Your task to perform on an android device: uninstall "Microsoft Authenticator" Image 0: 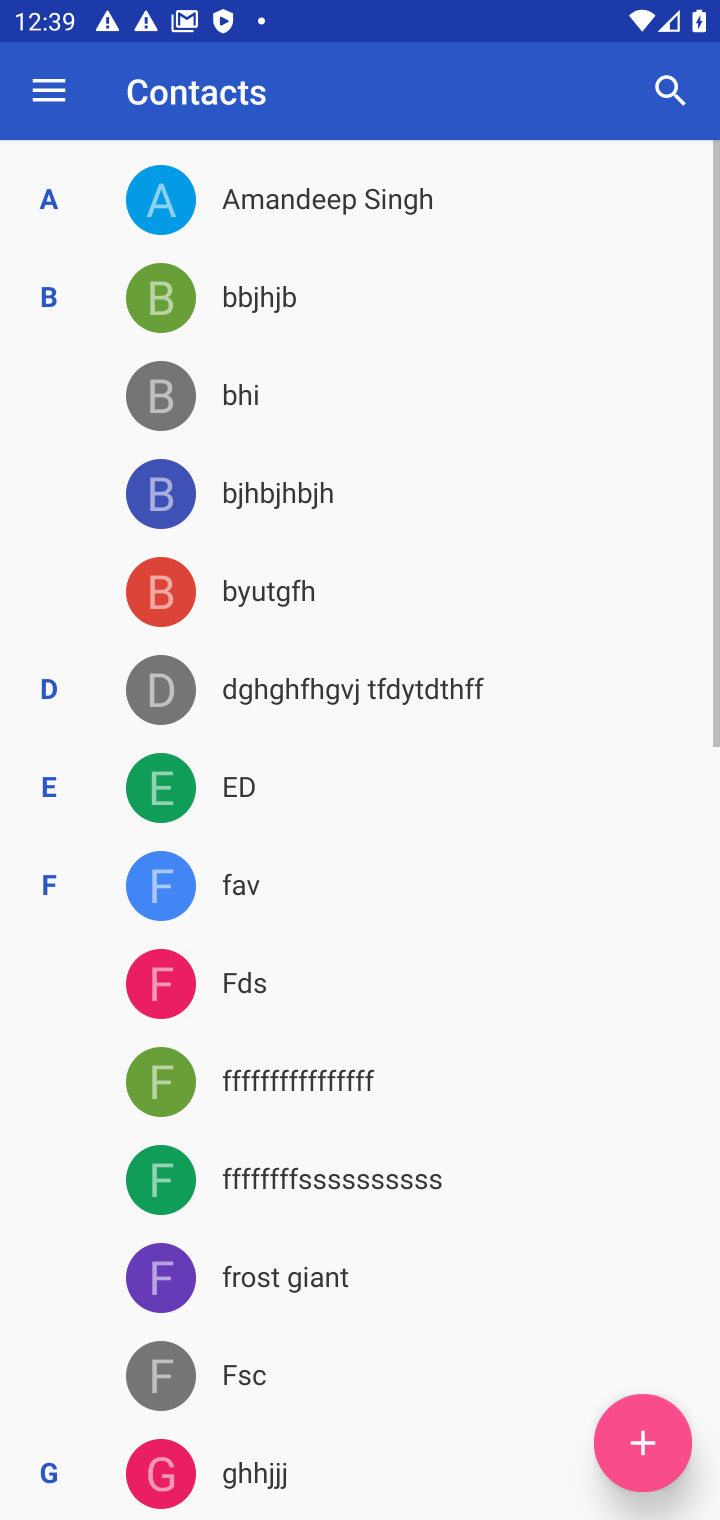
Step 0: press home button
Your task to perform on an android device: uninstall "Microsoft Authenticator" Image 1: 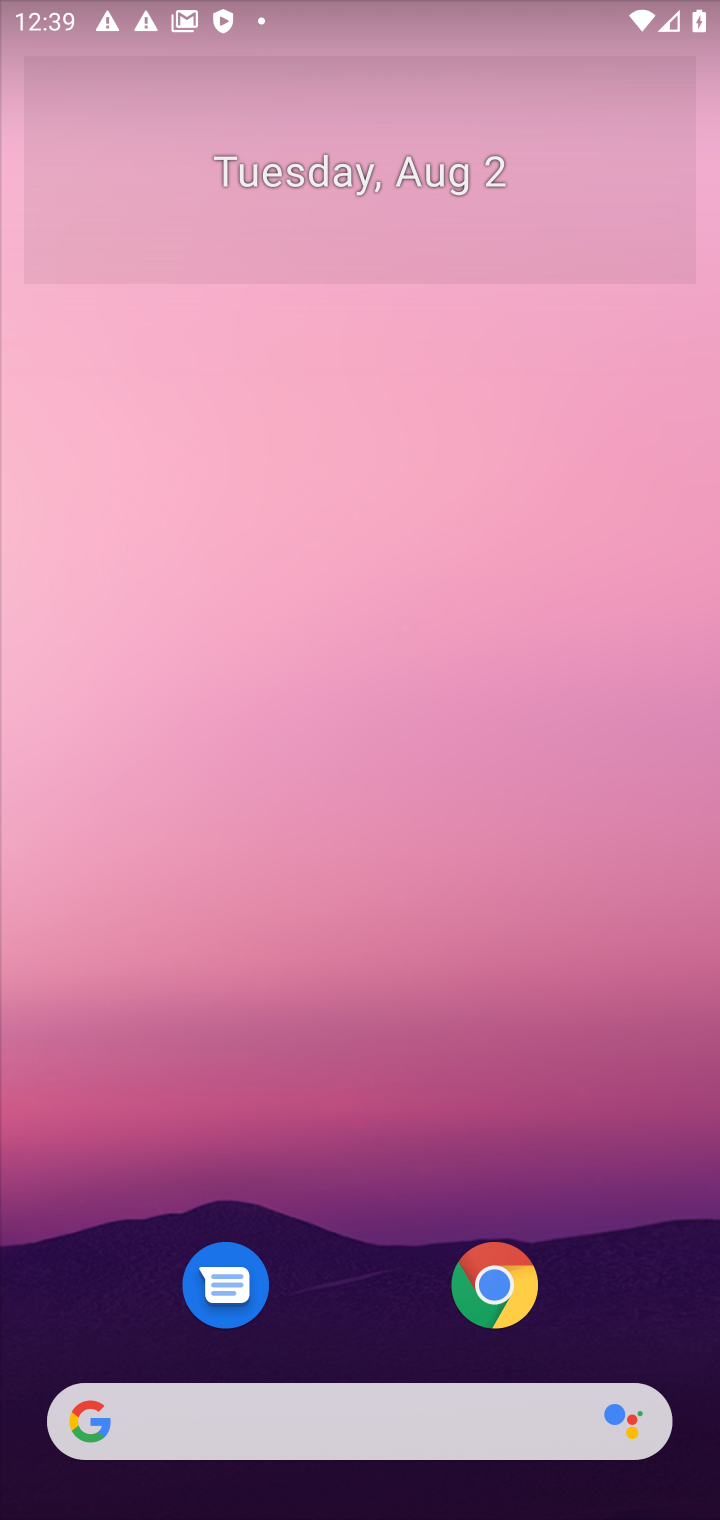
Step 1: drag from (468, 663) to (476, 122)
Your task to perform on an android device: uninstall "Microsoft Authenticator" Image 2: 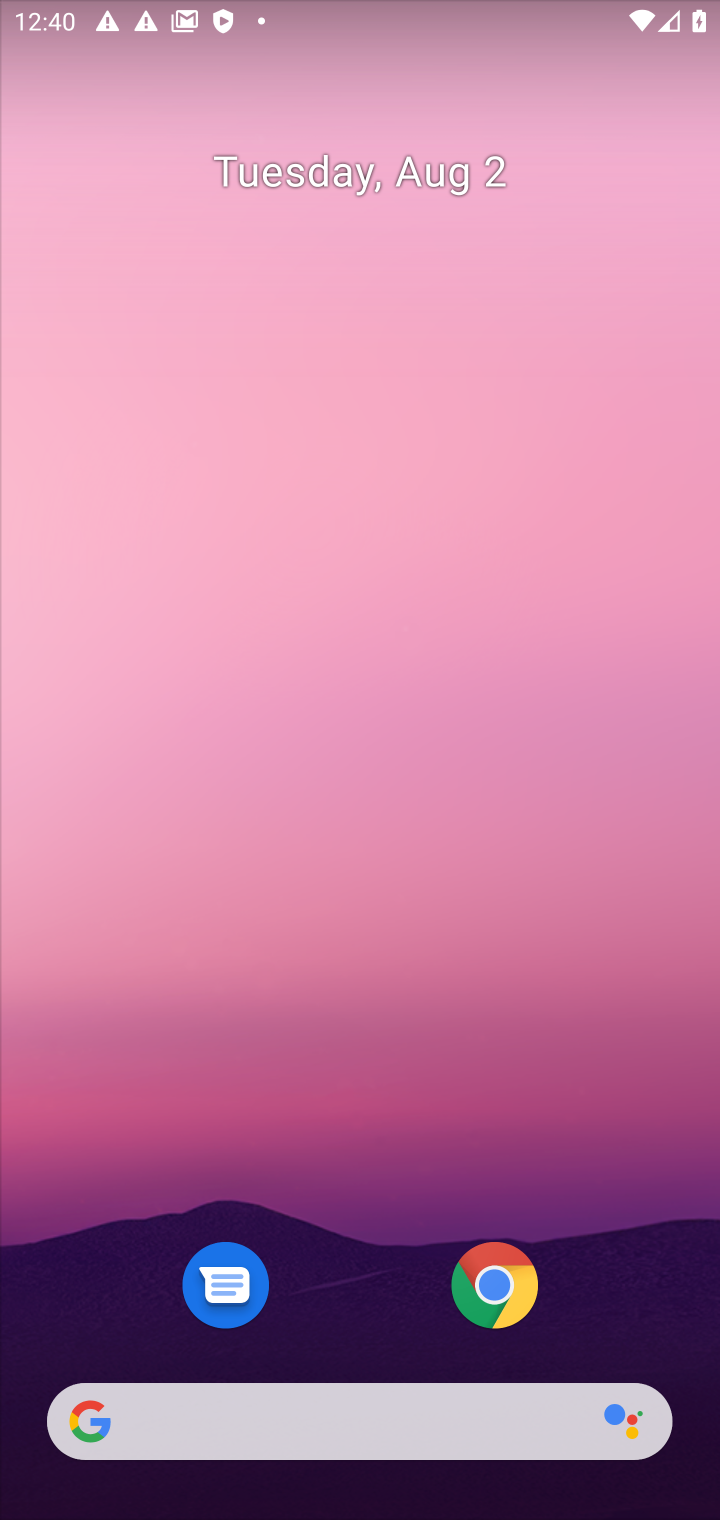
Step 2: drag from (369, 1182) to (466, 127)
Your task to perform on an android device: uninstall "Microsoft Authenticator" Image 3: 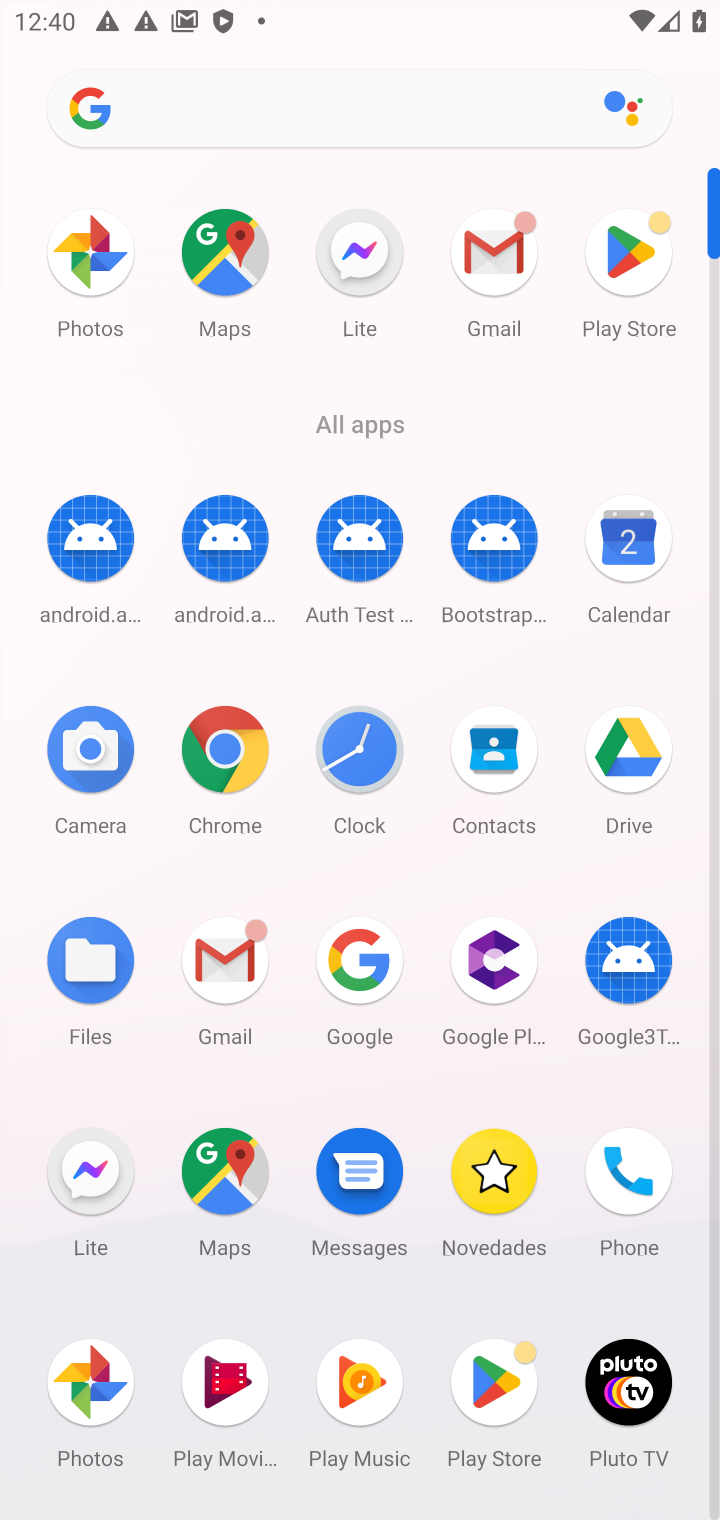
Step 3: click (513, 1395)
Your task to perform on an android device: uninstall "Microsoft Authenticator" Image 4: 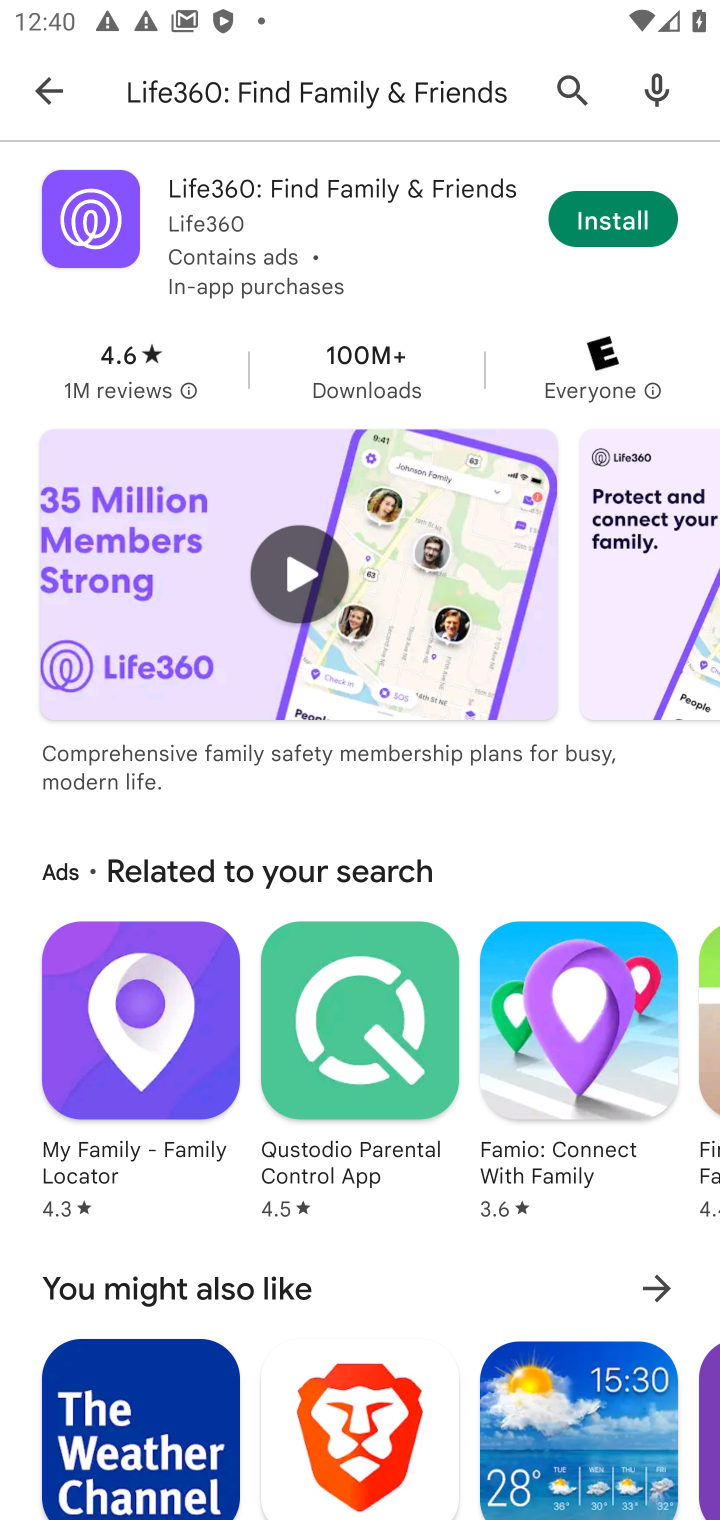
Step 4: click (392, 91)
Your task to perform on an android device: uninstall "Microsoft Authenticator" Image 5: 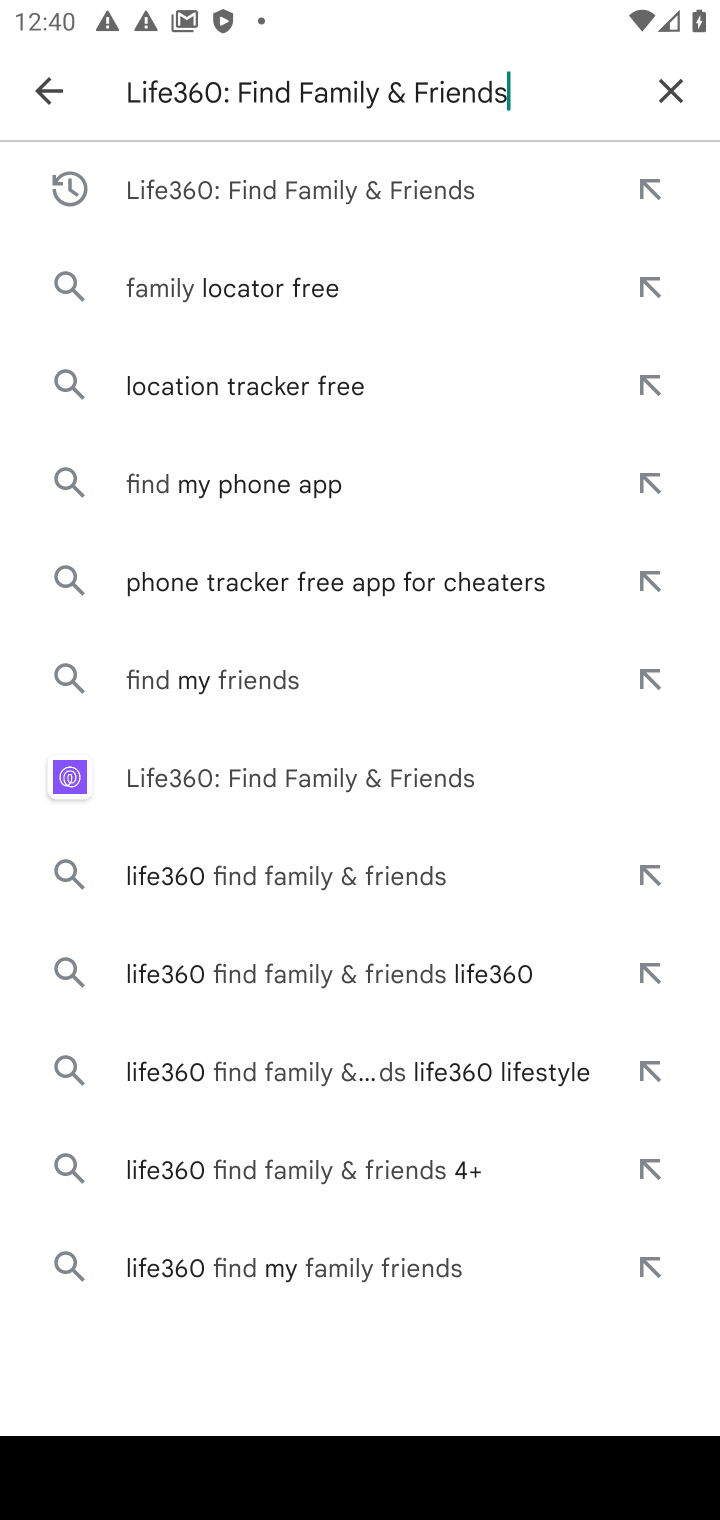
Step 5: click (464, 120)
Your task to perform on an android device: uninstall "Microsoft Authenticator" Image 6: 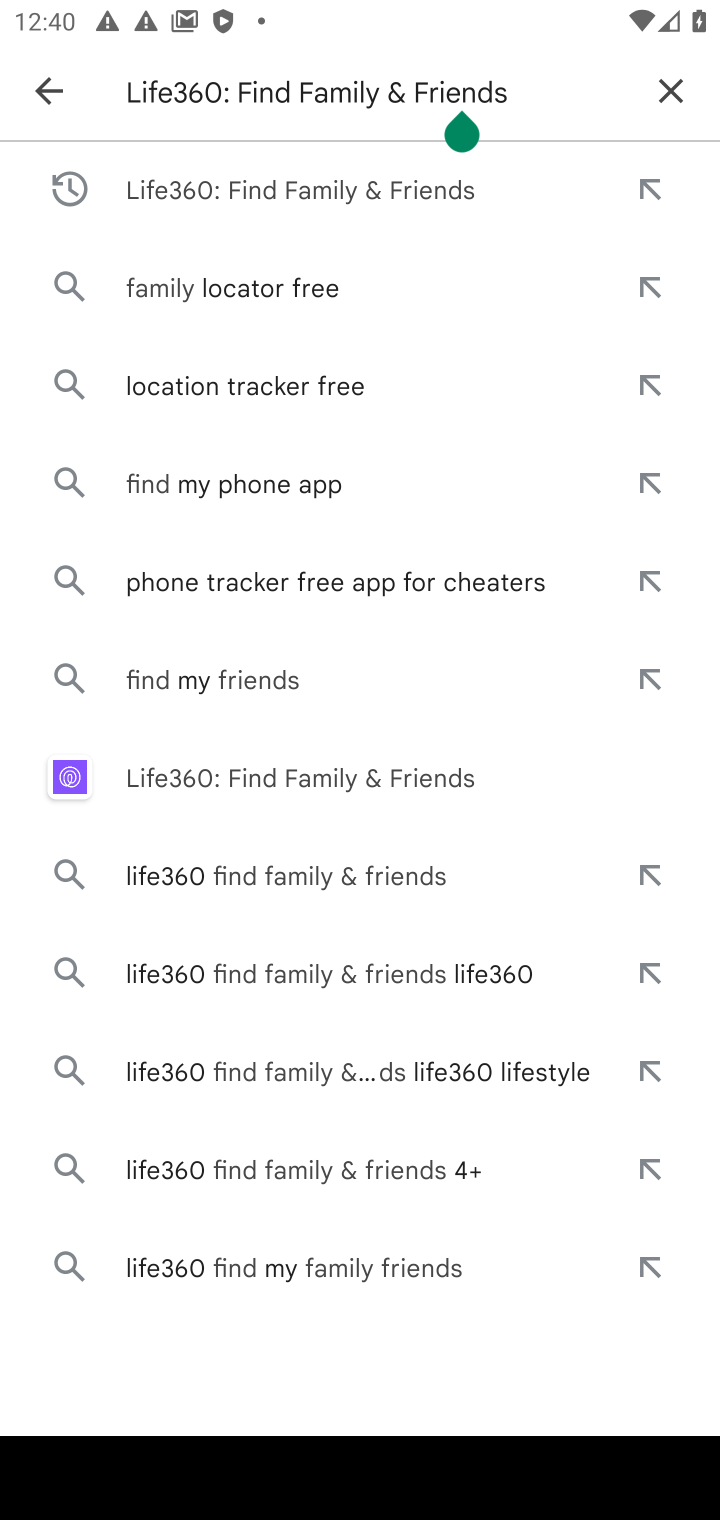
Step 6: click (692, 90)
Your task to perform on an android device: uninstall "Microsoft Authenticator" Image 7: 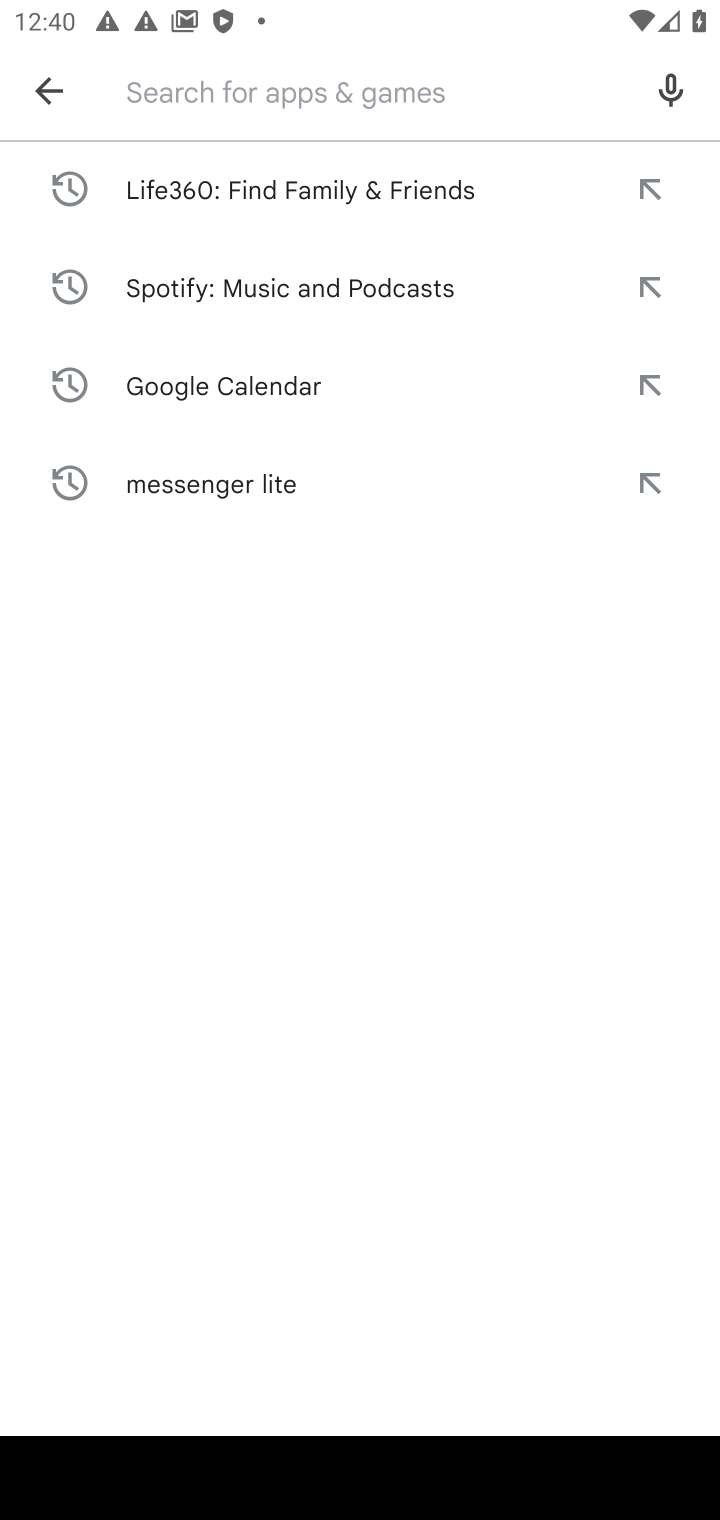
Step 7: type "Microsoft Authenticator"
Your task to perform on an android device: uninstall "Microsoft Authenticator" Image 8: 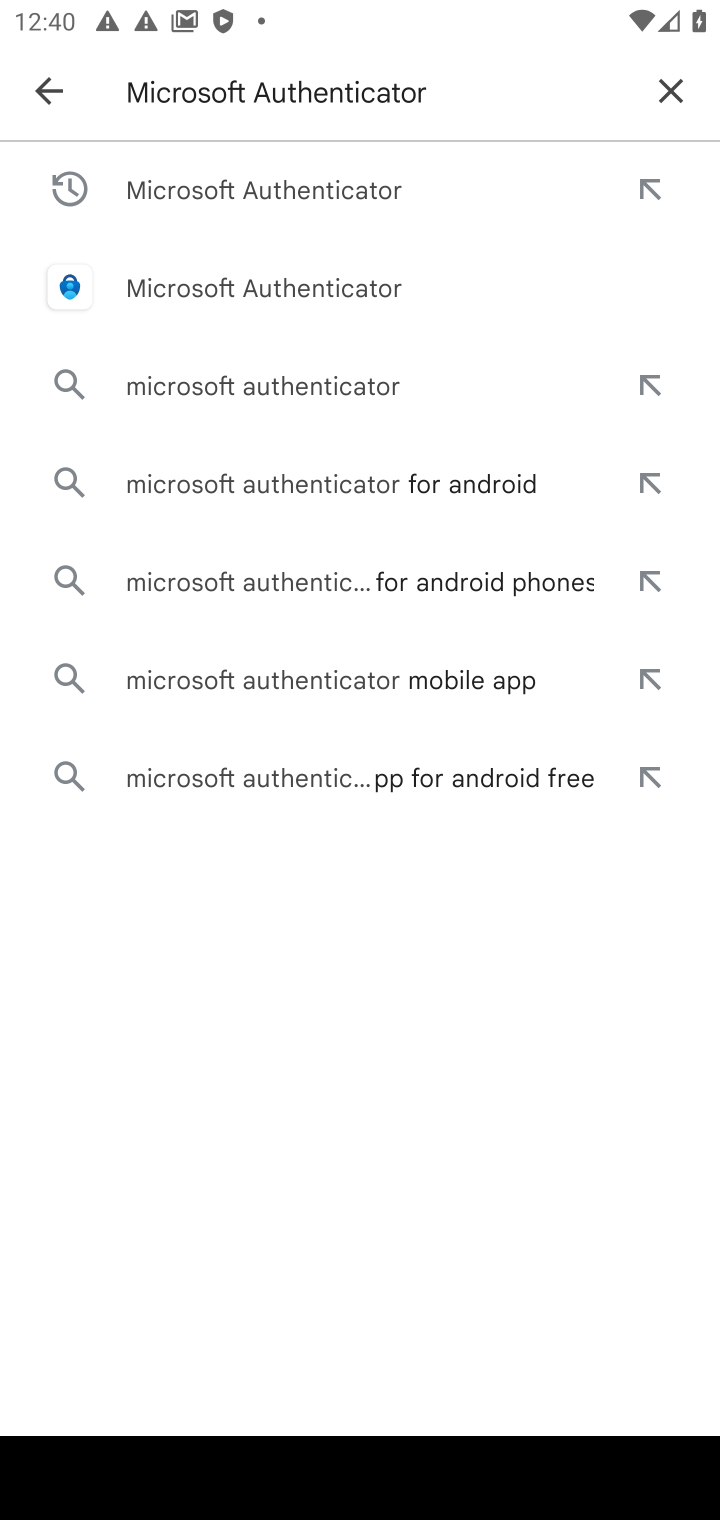
Step 8: click (342, 292)
Your task to perform on an android device: uninstall "Microsoft Authenticator" Image 9: 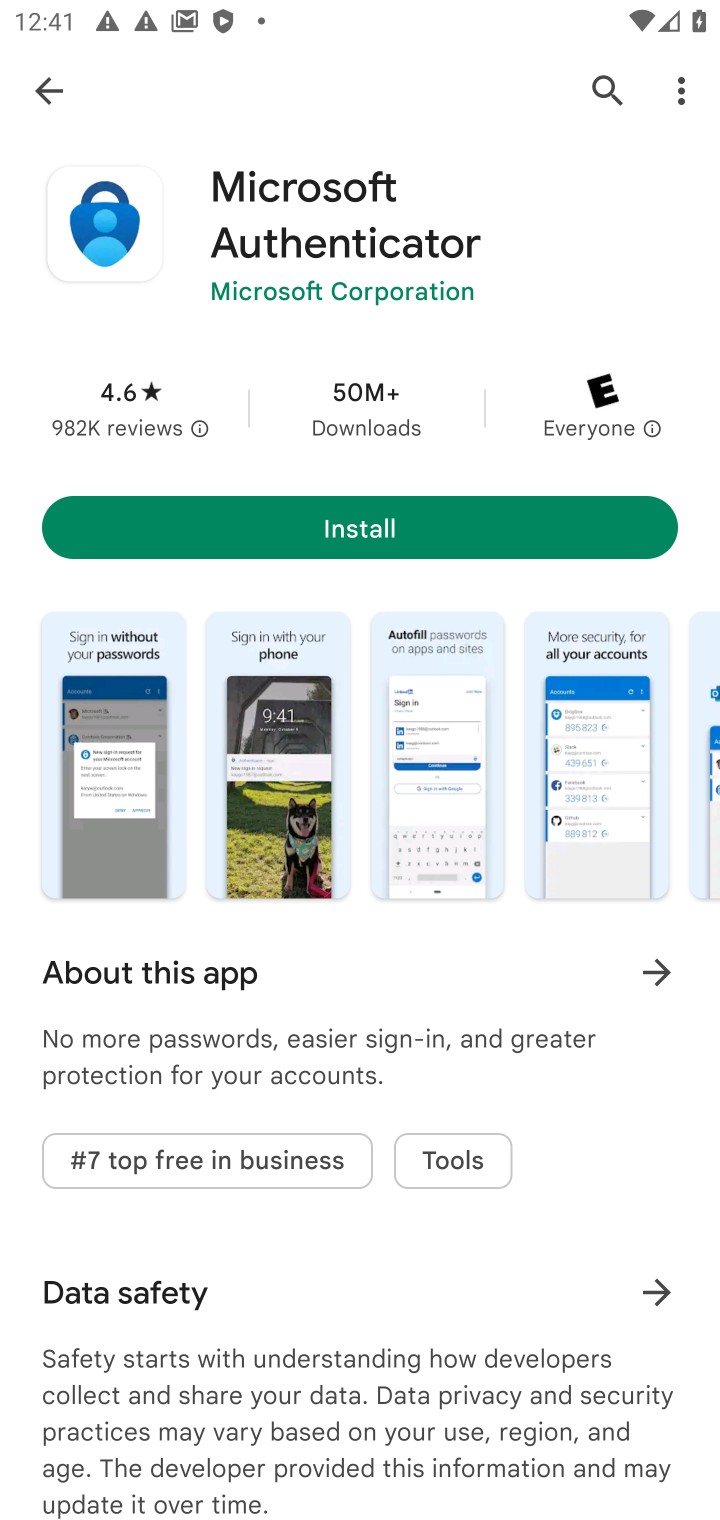
Step 9: task complete